Your task to perform on an android device: check battery use Image 0: 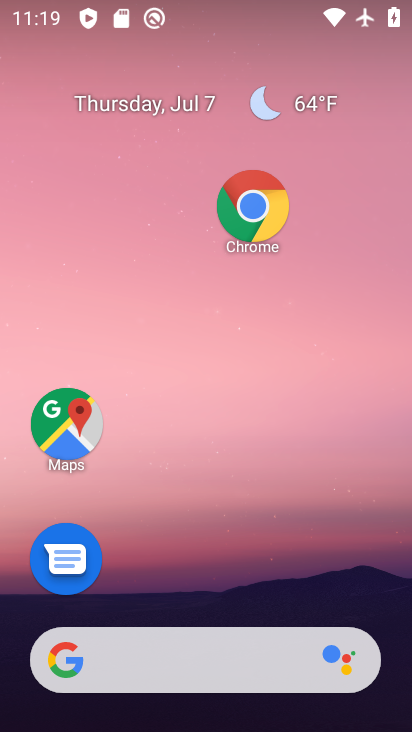
Step 0: drag from (211, 651) to (213, 201)
Your task to perform on an android device: check battery use Image 1: 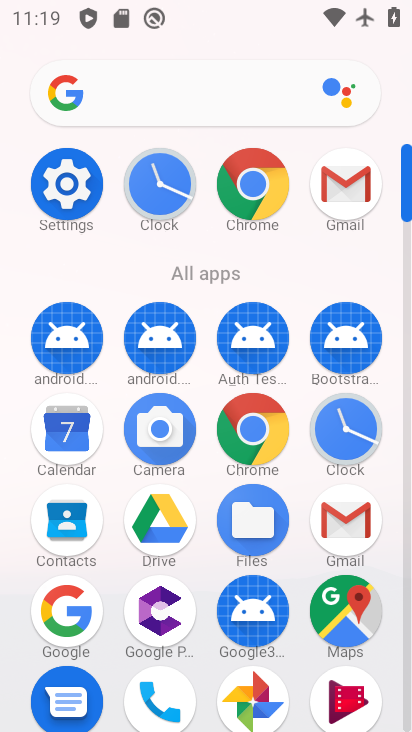
Step 1: click (67, 182)
Your task to perform on an android device: check battery use Image 2: 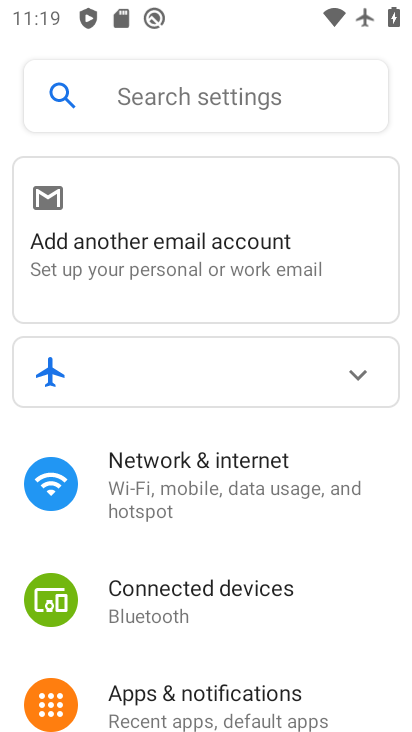
Step 2: drag from (199, 702) to (192, 323)
Your task to perform on an android device: check battery use Image 3: 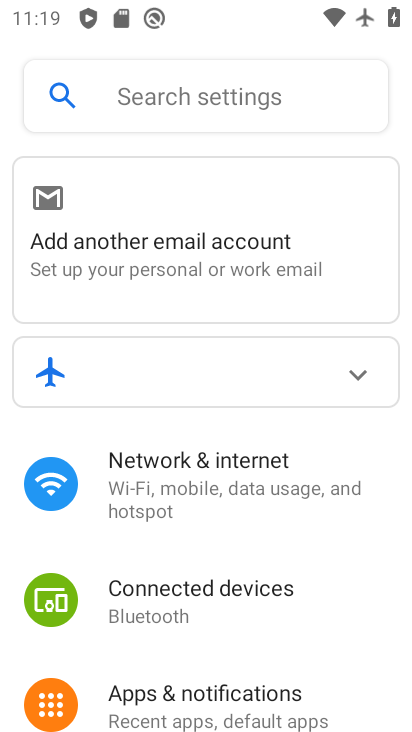
Step 3: drag from (218, 620) to (213, 174)
Your task to perform on an android device: check battery use Image 4: 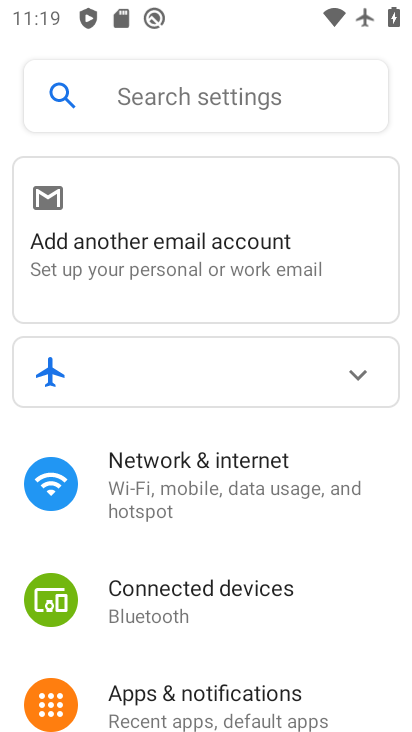
Step 4: drag from (159, 713) to (97, 215)
Your task to perform on an android device: check battery use Image 5: 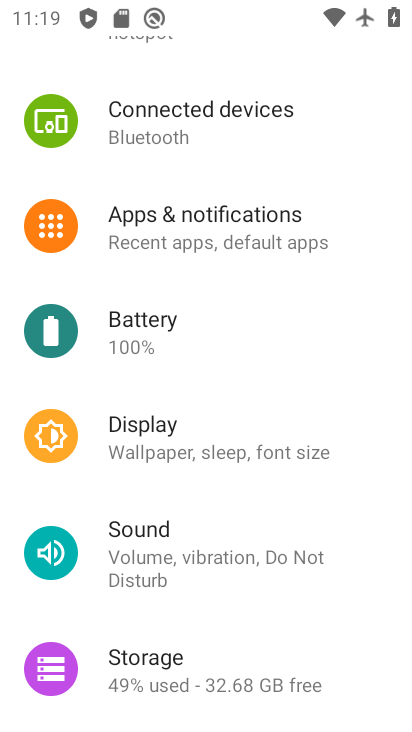
Step 5: click (147, 336)
Your task to perform on an android device: check battery use Image 6: 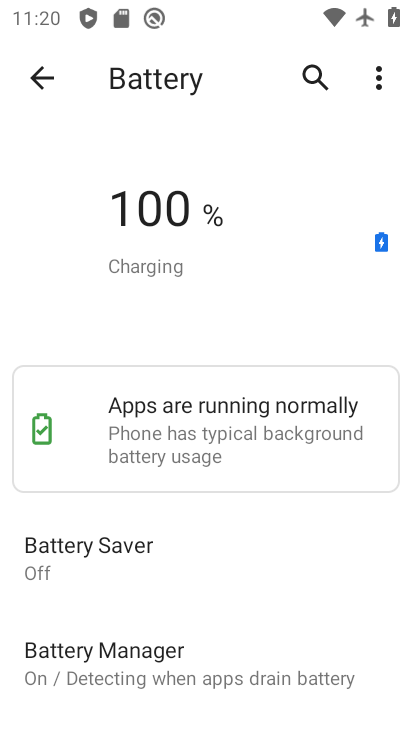
Step 6: drag from (156, 615) to (152, 308)
Your task to perform on an android device: check battery use Image 7: 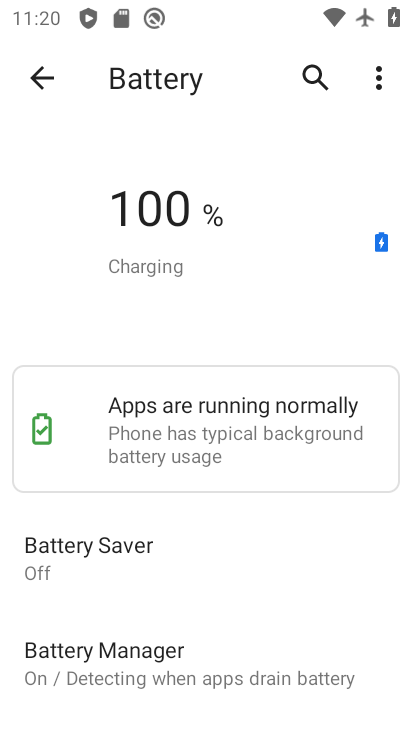
Step 7: click (375, 72)
Your task to perform on an android device: check battery use Image 8: 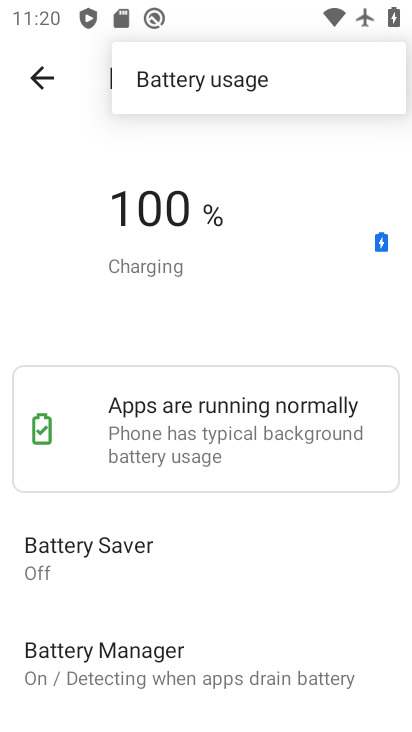
Step 8: click (286, 86)
Your task to perform on an android device: check battery use Image 9: 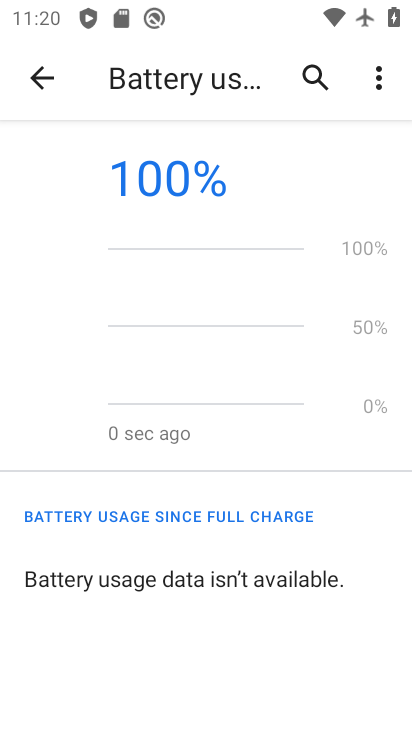
Step 9: task complete